Your task to perform on an android device: When is my next meeting? Image 0: 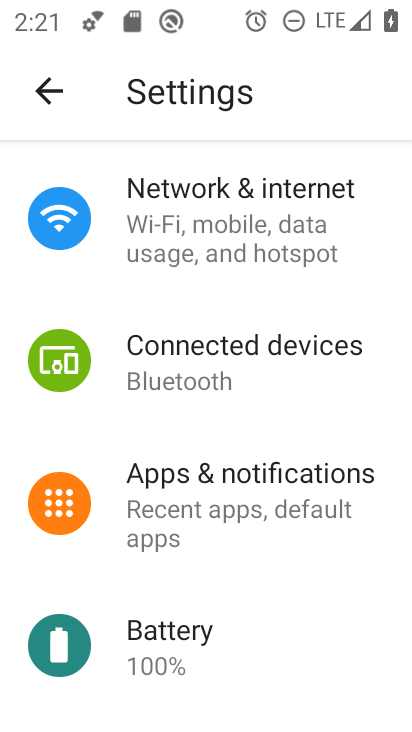
Step 0: press back button
Your task to perform on an android device: When is my next meeting? Image 1: 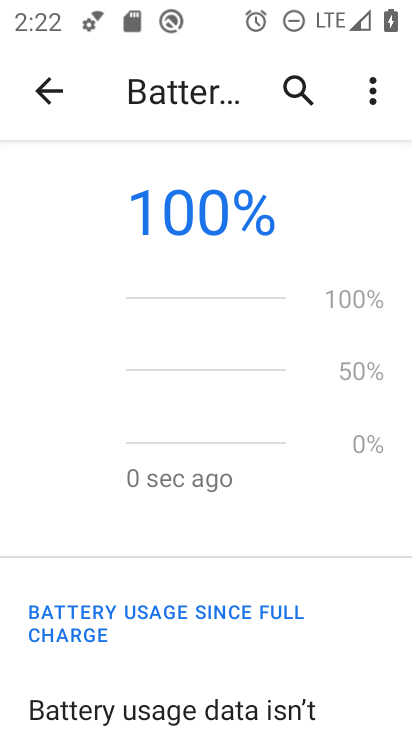
Step 1: press home button
Your task to perform on an android device: When is my next meeting? Image 2: 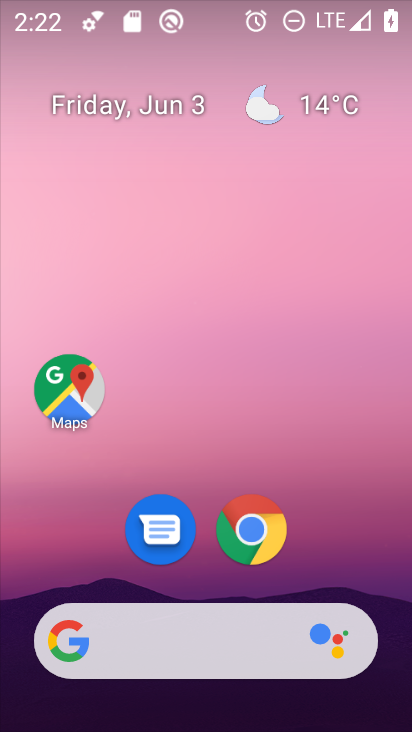
Step 2: drag from (343, 557) to (347, 188)
Your task to perform on an android device: When is my next meeting? Image 3: 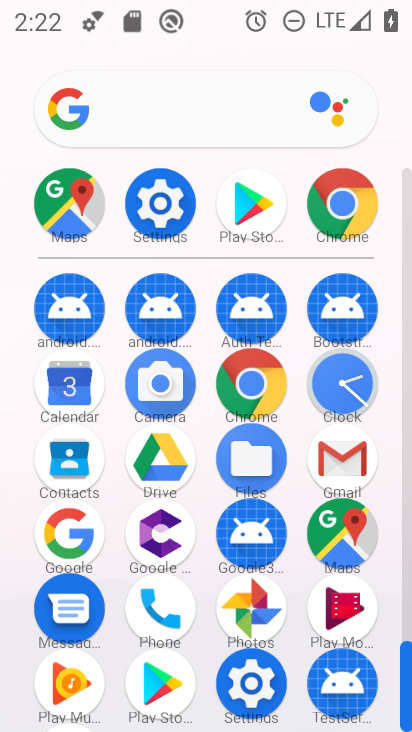
Step 3: click (58, 392)
Your task to perform on an android device: When is my next meeting? Image 4: 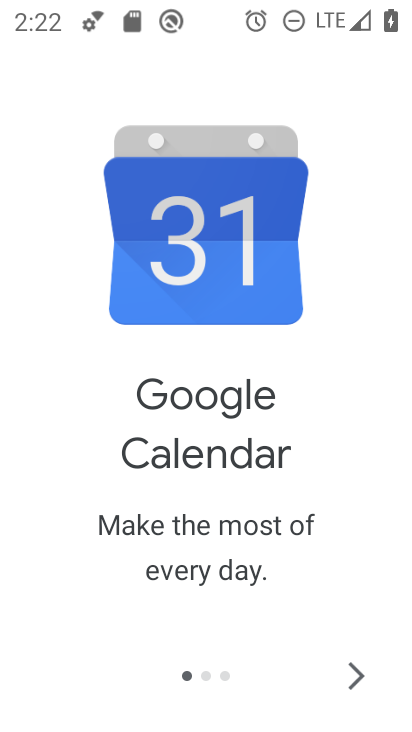
Step 4: click (347, 675)
Your task to perform on an android device: When is my next meeting? Image 5: 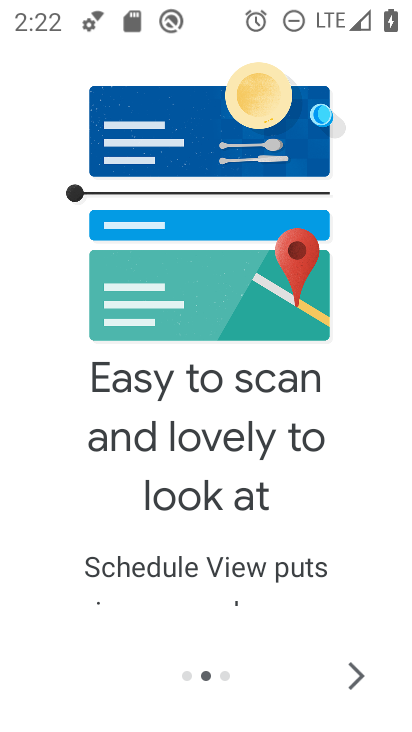
Step 5: click (347, 675)
Your task to perform on an android device: When is my next meeting? Image 6: 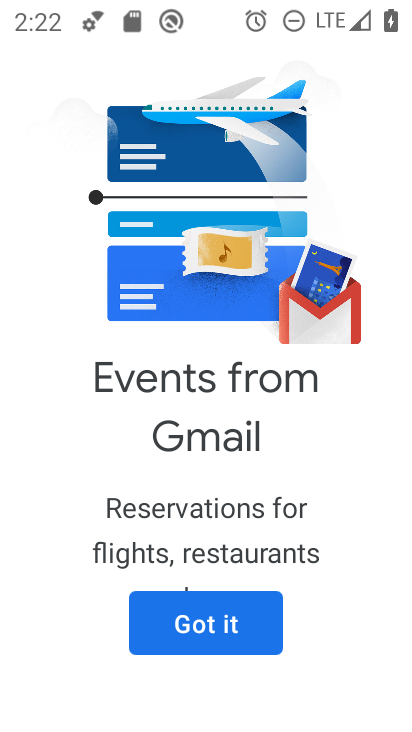
Step 6: click (238, 631)
Your task to perform on an android device: When is my next meeting? Image 7: 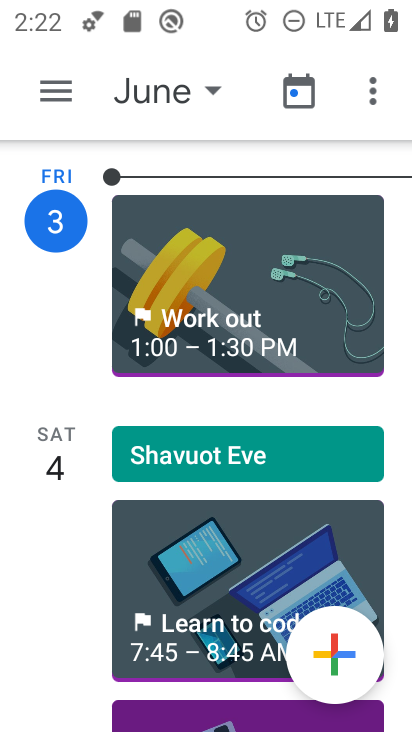
Step 7: drag from (253, 585) to (261, 325)
Your task to perform on an android device: When is my next meeting? Image 8: 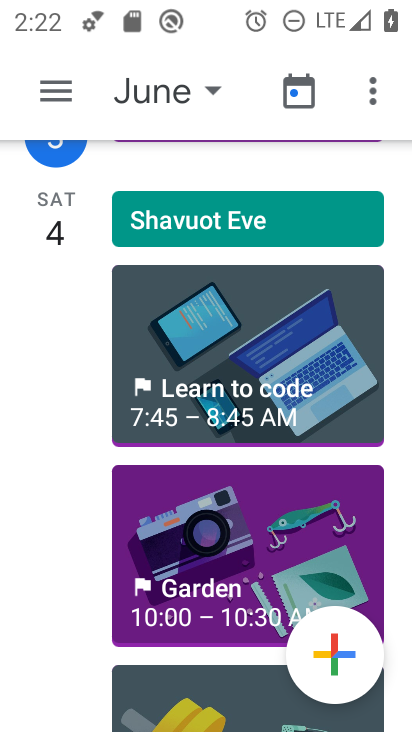
Step 8: click (241, 548)
Your task to perform on an android device: When is my next meeting? Image 9: 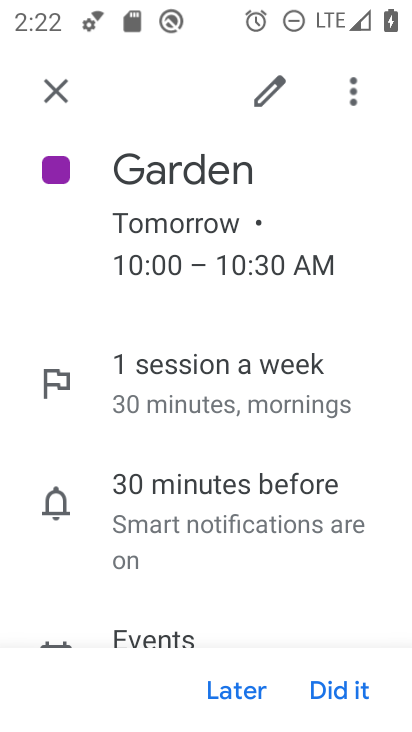
Step 9: task complete